Your task to perform on an android device: Show me productivity apps on the Play Store Image 0: 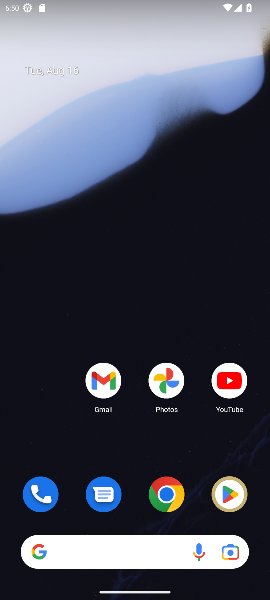
Step 0: click (217, 491)
Your task to perform on an android device: Show me productivity apps on the Play Store Image 1: 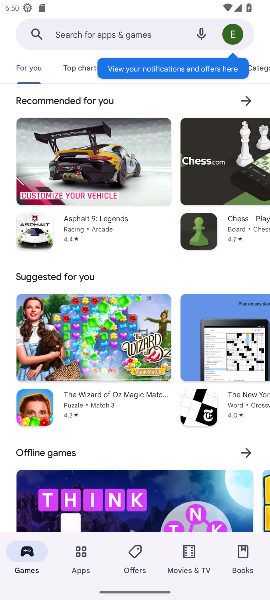
Step 1: task complete